Your task to perform on an android device: uninstall "Lyft - Rideshare, Bikes, Scooters & Transit" Image 0: 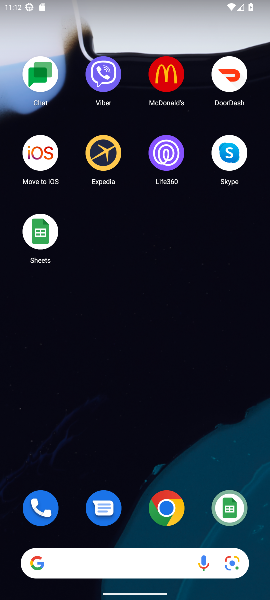
Step 0: drag from (56, 504) to (100, 24)
Your task to perform on an android device: uninstall "Lyft - Rideshare, Bikes, Scooters & Transit" Image 1: 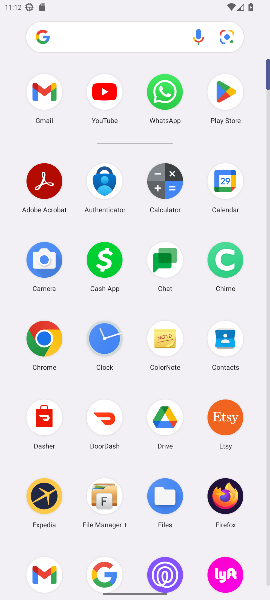
Step 1: click (215, 101)
Your task to perform on an android device: uninstall "Lyft - Rideshare, Bikes, Scooters & Transit" Image 2: 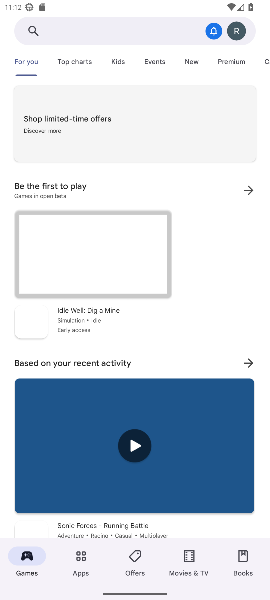
Step 2: click (178, 31)
Your task to perform on an android device: uninstall "Lyft - Rideshare, Bikes, Scooters & Transit" Image 3: 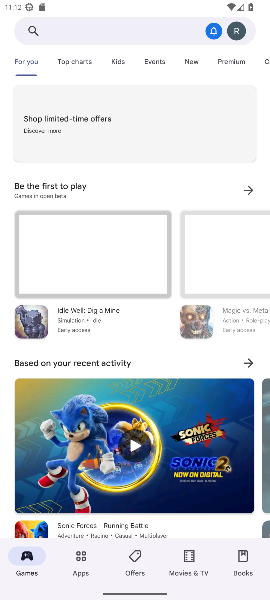
Step 3: click (175, 38)
Your task to perform on an android device: uninstall "Lyft - Rideshare, Bikes, Scooters & Transit" Image 4: 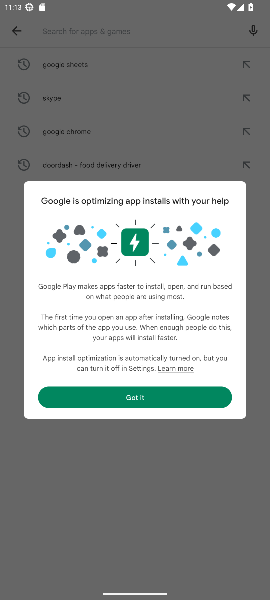
Step 4: click (142, 402)
Your task to perform on an android device: uninstall "Lyft - Rideshare, Bikes, Scooters & Transit" Image 5: 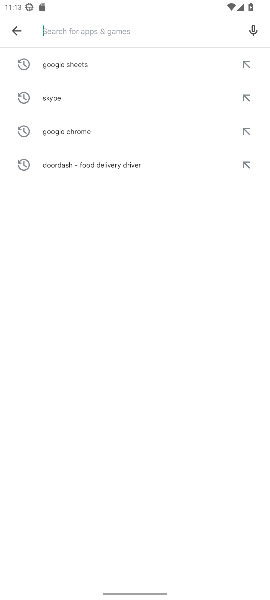
Step 5: click (134, 34)
Your task to perform on an android device: uninstall "Lyft - Rideshare, Bikes, Scooters & Transit" Image 6: 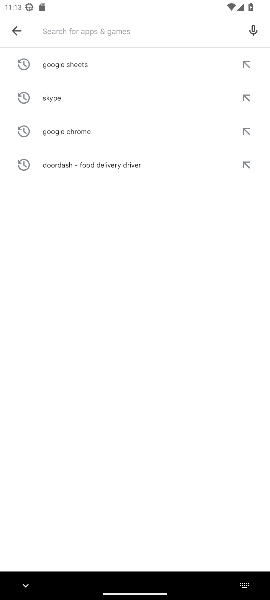
Step 6: type "lyft - rideshare, bikes, scooters & transit"
Your task to perform on an android device: uninstall "Lyft - Rideshare, Bikes, Scooters & Transit" Image 7: 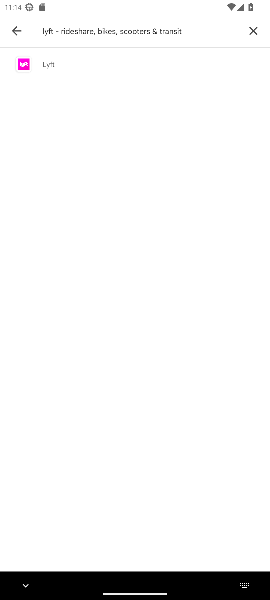
Step 7: click (42, 67)
Your task to perform on an android device: uninstall "Lyft - Rideshare, Bikes, Scooters & Transit" Image 8: 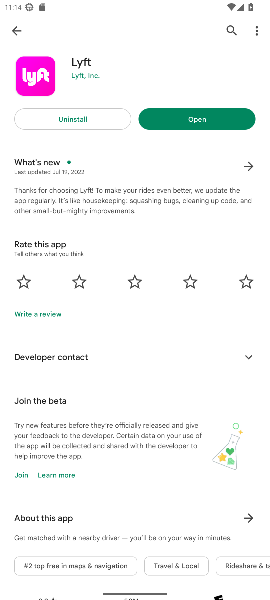
Step 8: click (115, 123)
Your task to perform on an android device: uninstall "Lyft - Rideshare, Bikes, Scooters & Transit" Image 9: 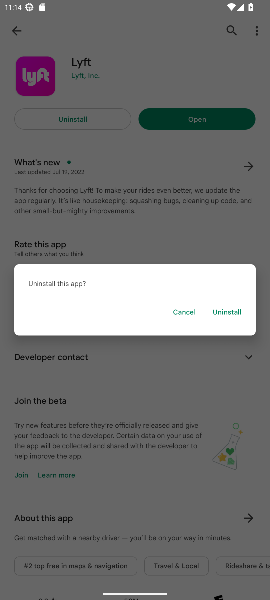
Step 9: click (222, 311)
Your task to perform on an android device: uninstall "Lyft - Rideshare, Bikes, Scooters & Transit" Image 10: 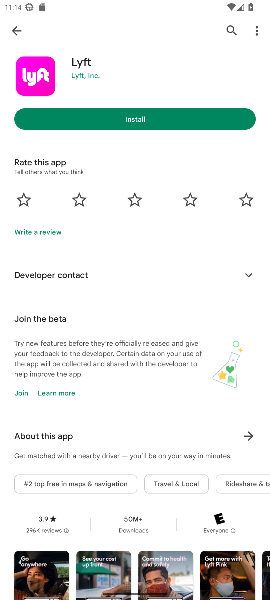
Step 10: task complete